Your task to perform on an android device: change the clock display to analog Image 0: 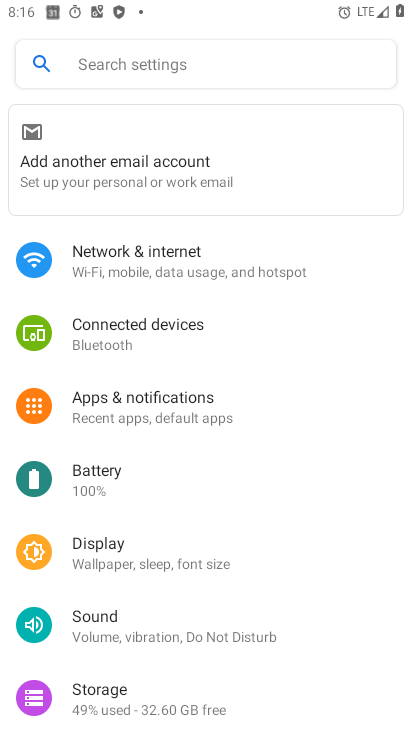
Step 0: press home button
Your task to perform on an android device: change the clock display to analog Image 1: 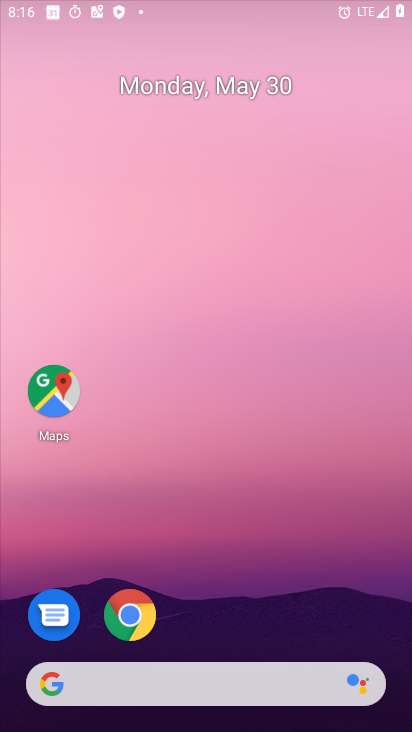
Step 1: drag from (358, 513) to (319, 57)
Your task to perform on an android device: change the clock display to analog Image 2: 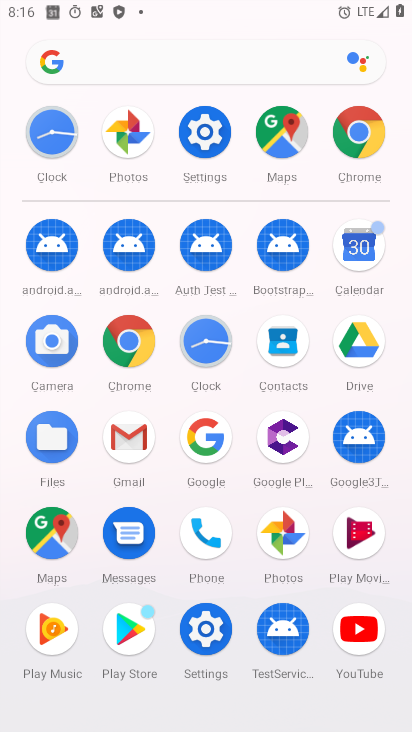
Step 2: click (213, 333)
Your task to perform on an android device: change the clock display to analog Image 3: 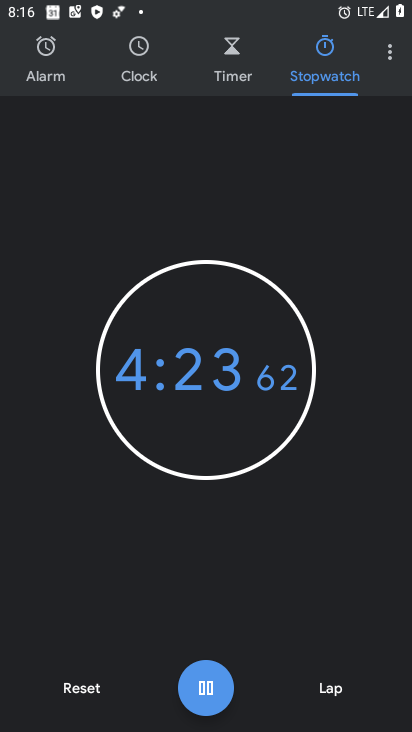
Step 3: click (384, 63)
Your task to perform on an android device: change the clock display to analog Image 4: 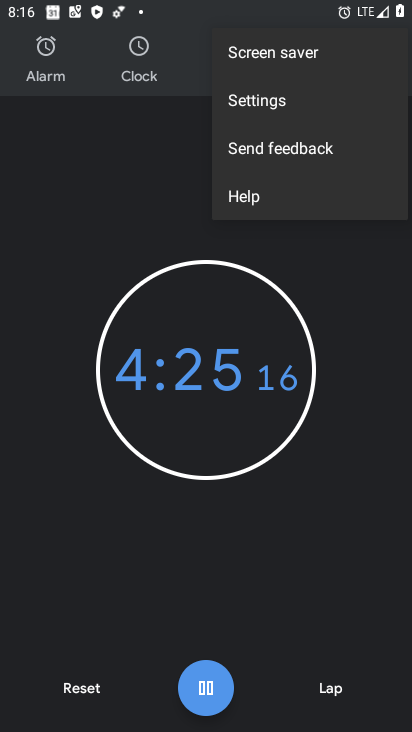
Step 4: click (275, 113)
Your task to perform on an android device: change the clock display to analog Image 5: 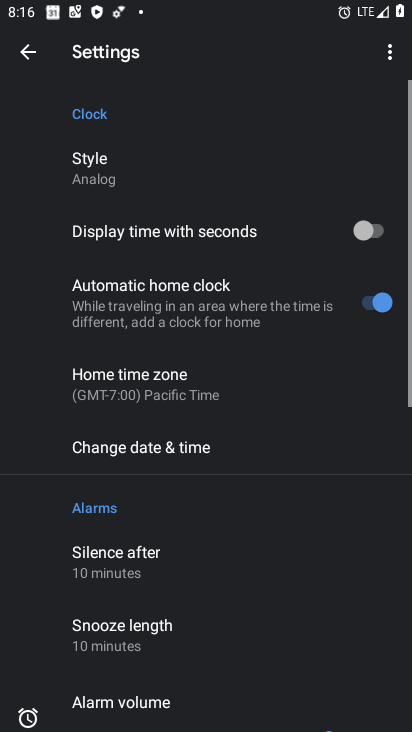
Step 5: click (91, 174)
Your task to perform on an android device: change the clock display to analog Image 6: 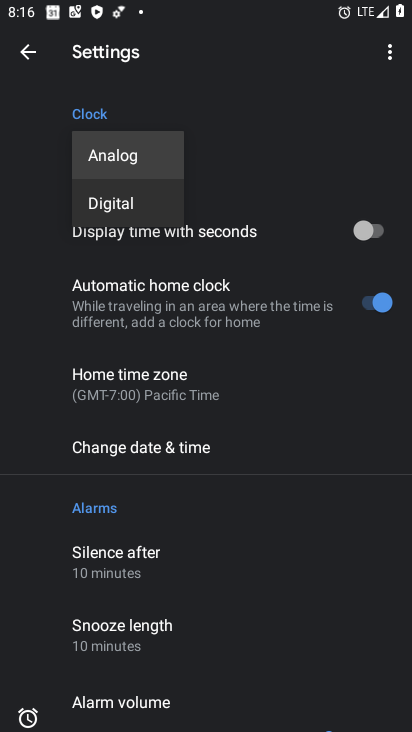
Step 6: task complete